Your task to perform on an android device: Is it going to rain this weekend? Image 0: 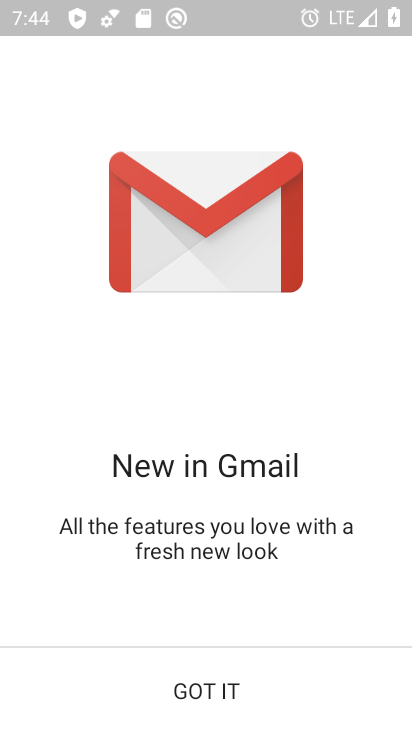
Step 0: press home button
Your task to perform on an android device: Is it going to rain this weekend? Image 1: 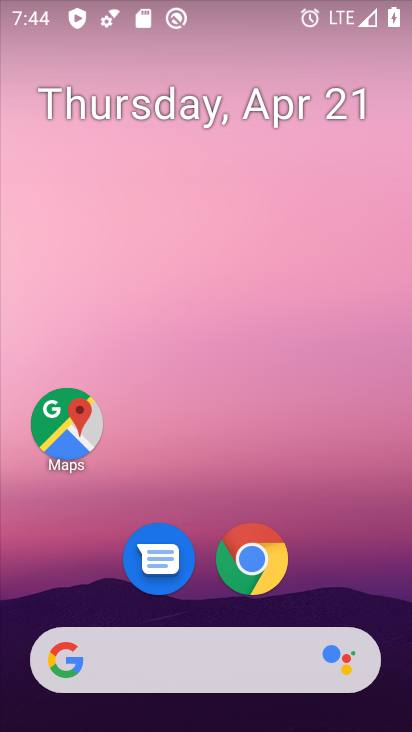
Step 1: drag from (342, 562) to (320, 131)
Your task to perform on an android device: Is it going to rain this weekend? Image 2: 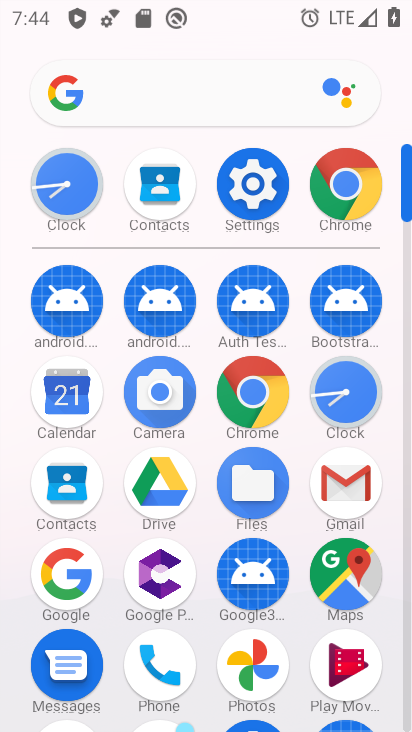
Step 2: click (277, 378)
Your task to perform on an android device: Is it going to rain this weekend? Image 3: 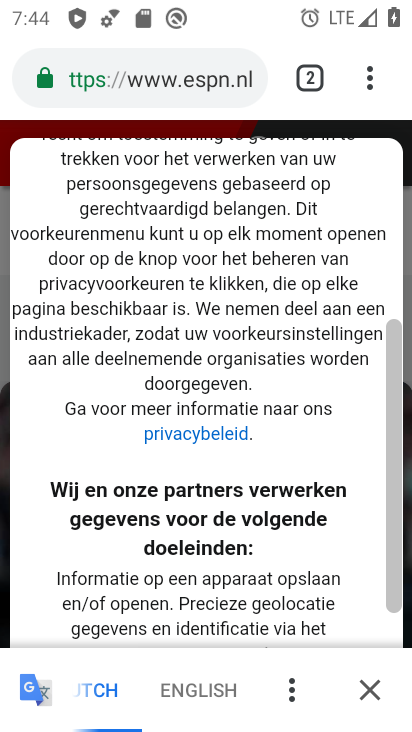
Step 3: click (188, 74)
Your task to perform on an android device: Is it going to rain this weekend? Image 4: 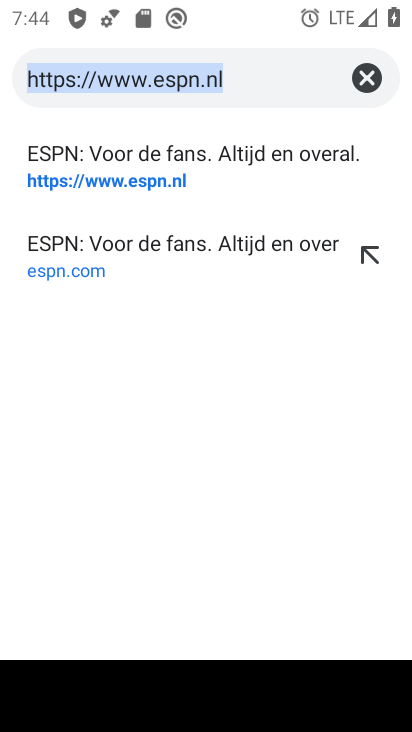
Step 4: click (365, 68)
Your task to perform on an android device: Is it going to rain this weekend? Image 5: 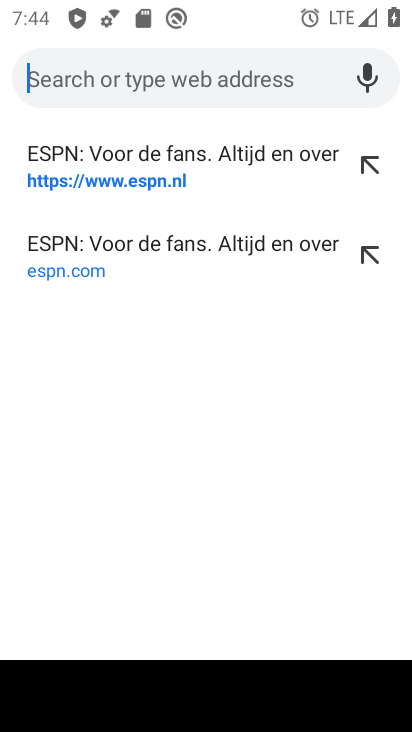
Step 5: type "is it going to be rain this weekend"
Your task to perform on an android device: Is it going to rain this weekend? Image 6: 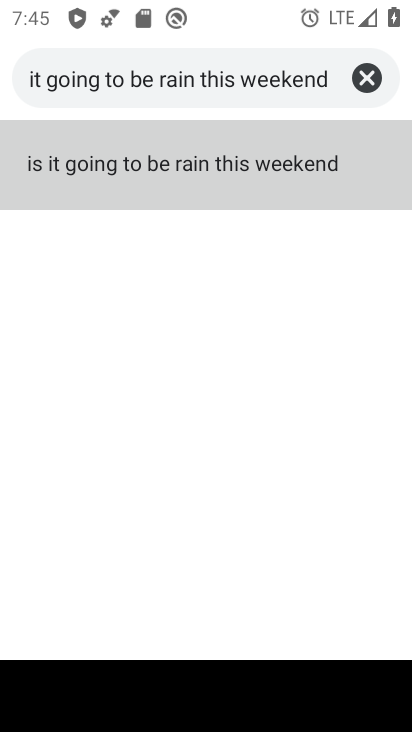
Step 6: click (298, 172)
Your task to perform on an android device: Is it going to rain this weekend? Image 7: 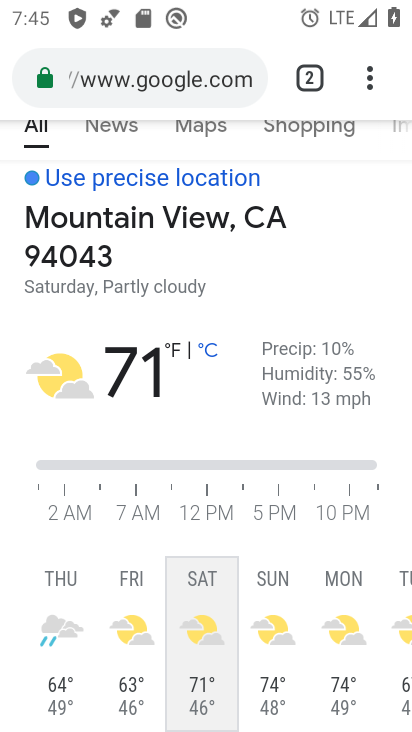
Step 7: task complete